Your task to perform on an android device: Search for Italian restaurants on Maps Image 0: 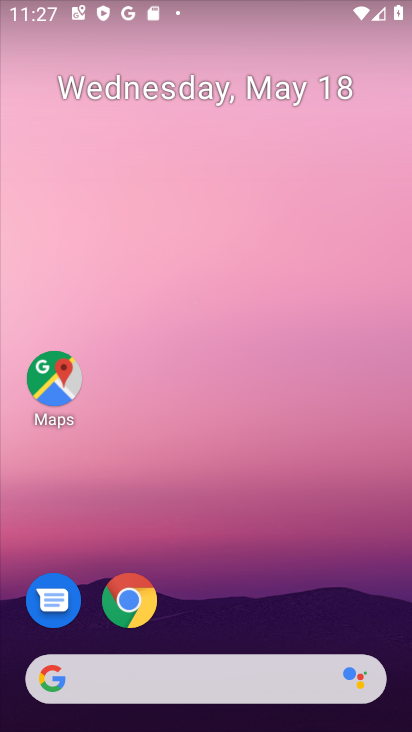
Step 0: click (59, 377)
Your task to perform on an android device: Search for Italian restaurants on Maps Image 1: 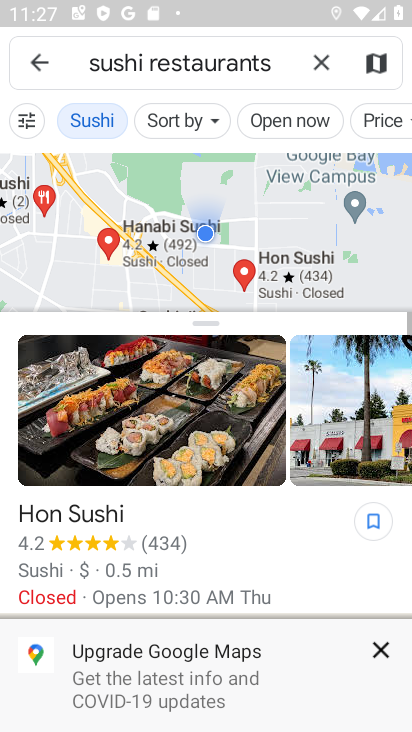
Step 1: click (320, 57)
Your task to perform on an android device: Search for Italian restaurants on Maps Image 2: 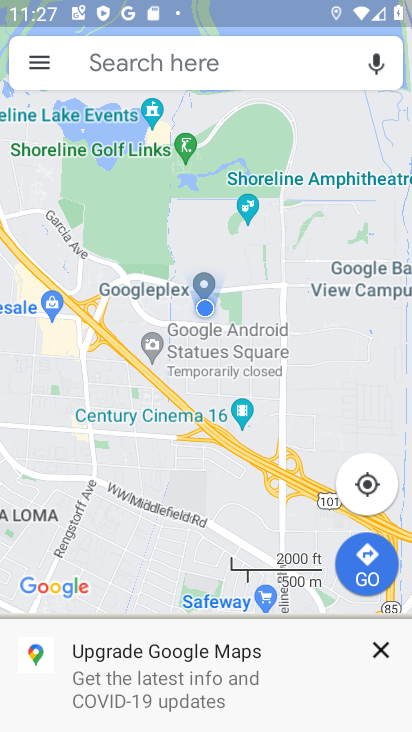
Step 2: click (149, 69)
Your task to perform on an android device: Search for Italian restaurants on Maps Image 3: 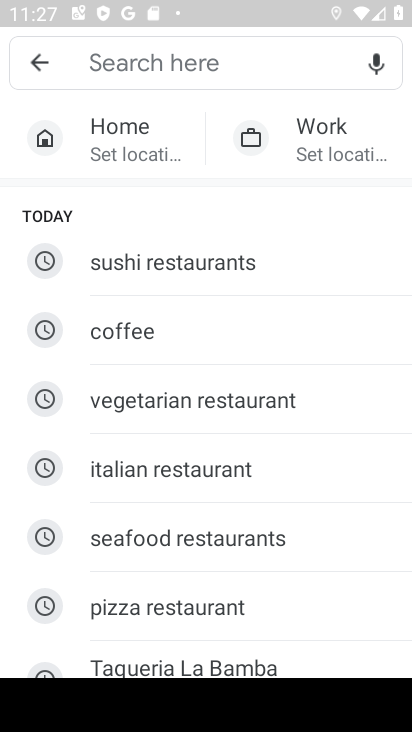
Step 3: type "italian restaurants"
Your task to perform on an android device: Search for Italian restaurants on Maps Image 4: 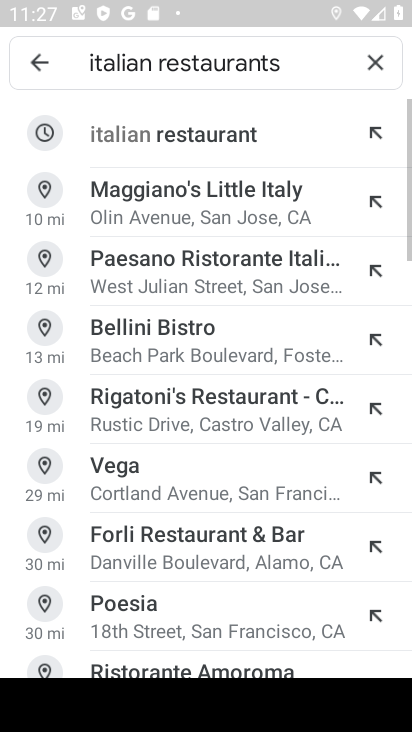
Step 4: click (220, 135)
Your task to perform on an android device: Search for Italian restaurants on Maps Image 5: 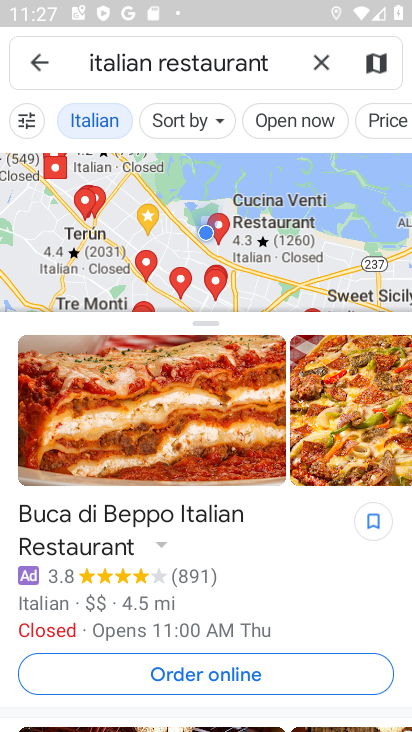
Step 5: task complete